Your task to perform on an android device: Open settings Image 0: 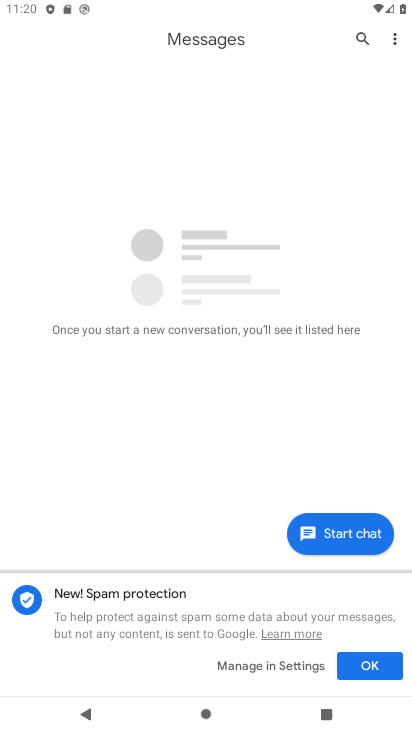
Step 0: press home button
Your task to perform on an android device: Open settings Image 1: 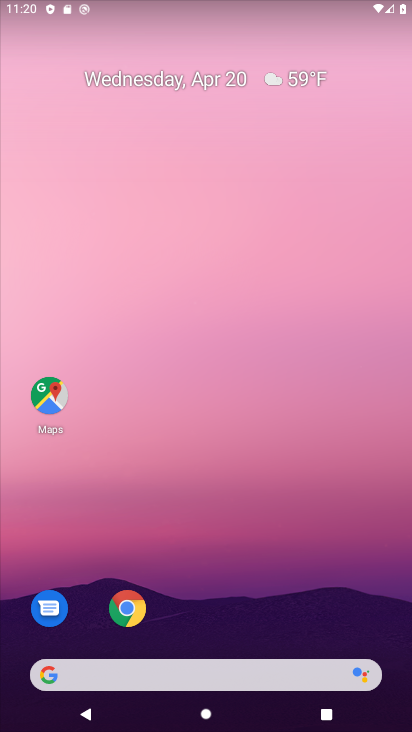
Step 1: drag from (214, 547) to (155, 102)
Your task to perform on an android device: Open settings Image 2: 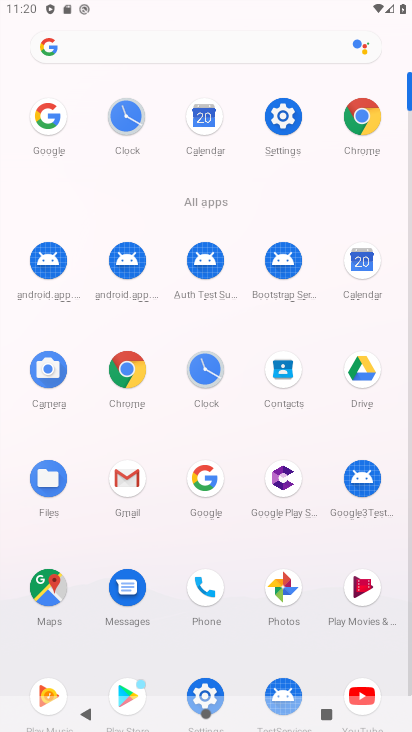
Step 2: click (285, 122)
Your task to perform on an android device: Open settings Image 3: 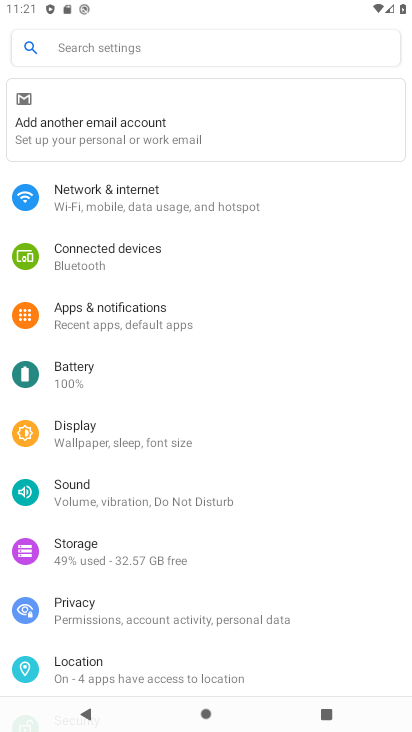
Step 3: task complete